Your task to perform on an android device: uninstall "Roku - Official Remote Control" Image 0: 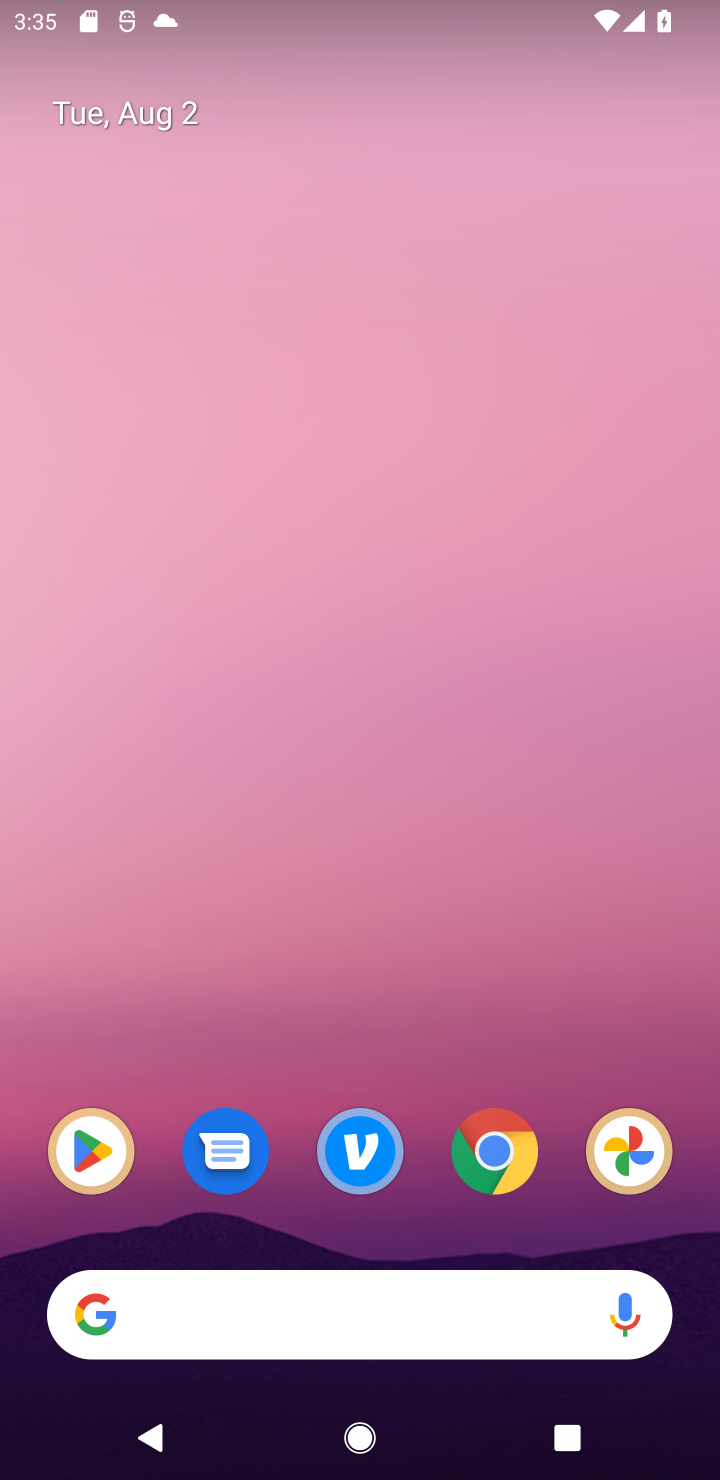
Step 0: drag from (443, 791) to (671, 880)
Your task to perform on an android device: uninstall "Roku - Official Remote Control" Image 1: 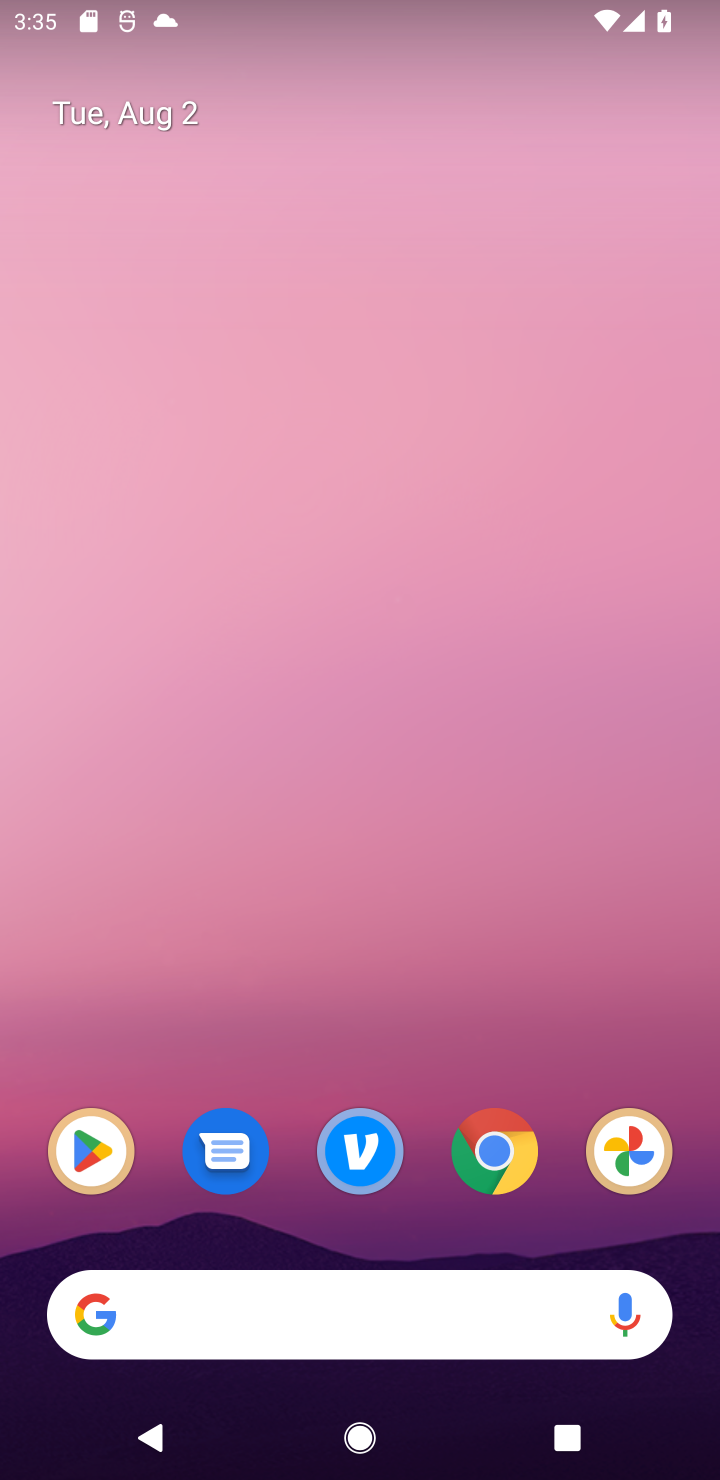
Step 1: drag from (409, 1083) to (375, 174)
Your task to perform on an android device: uninstall "Roku - Official Remote Control" Image 2: 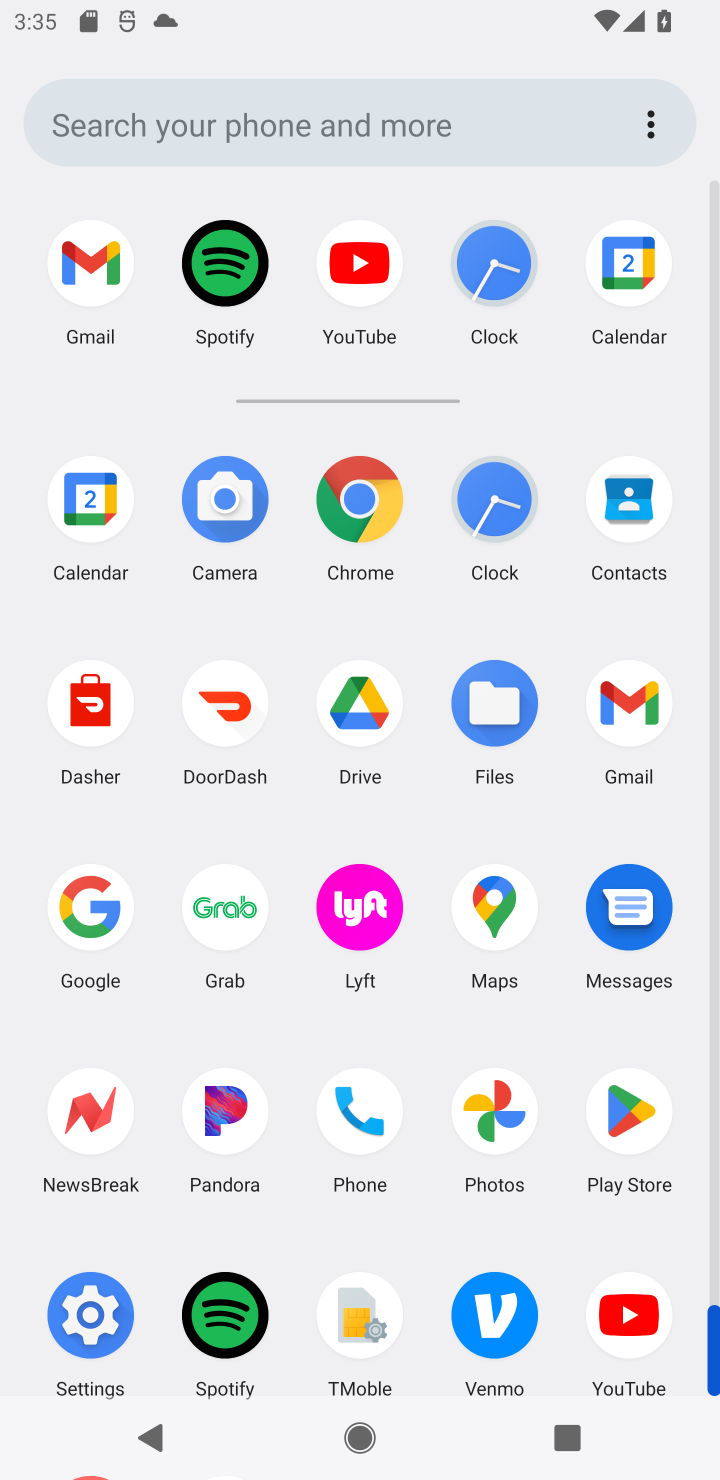
Step 2: click (573, 1122)
Your task to perform on an android device: uninstall "Roku - Official Remote Control" Image 3: 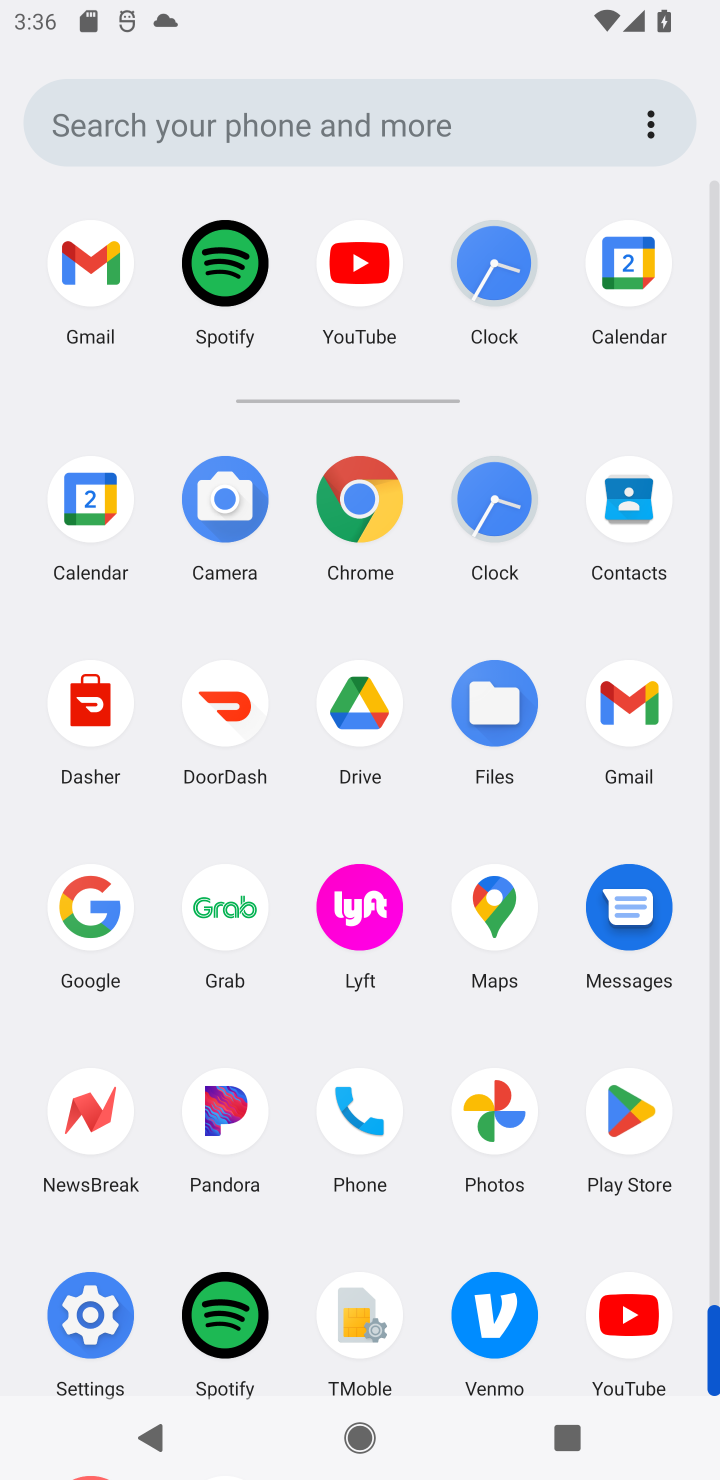
Step 3: click (642, 1125)
Your task to perform on an android device: uninstall "Roku - Official Remote Control" Image 4: 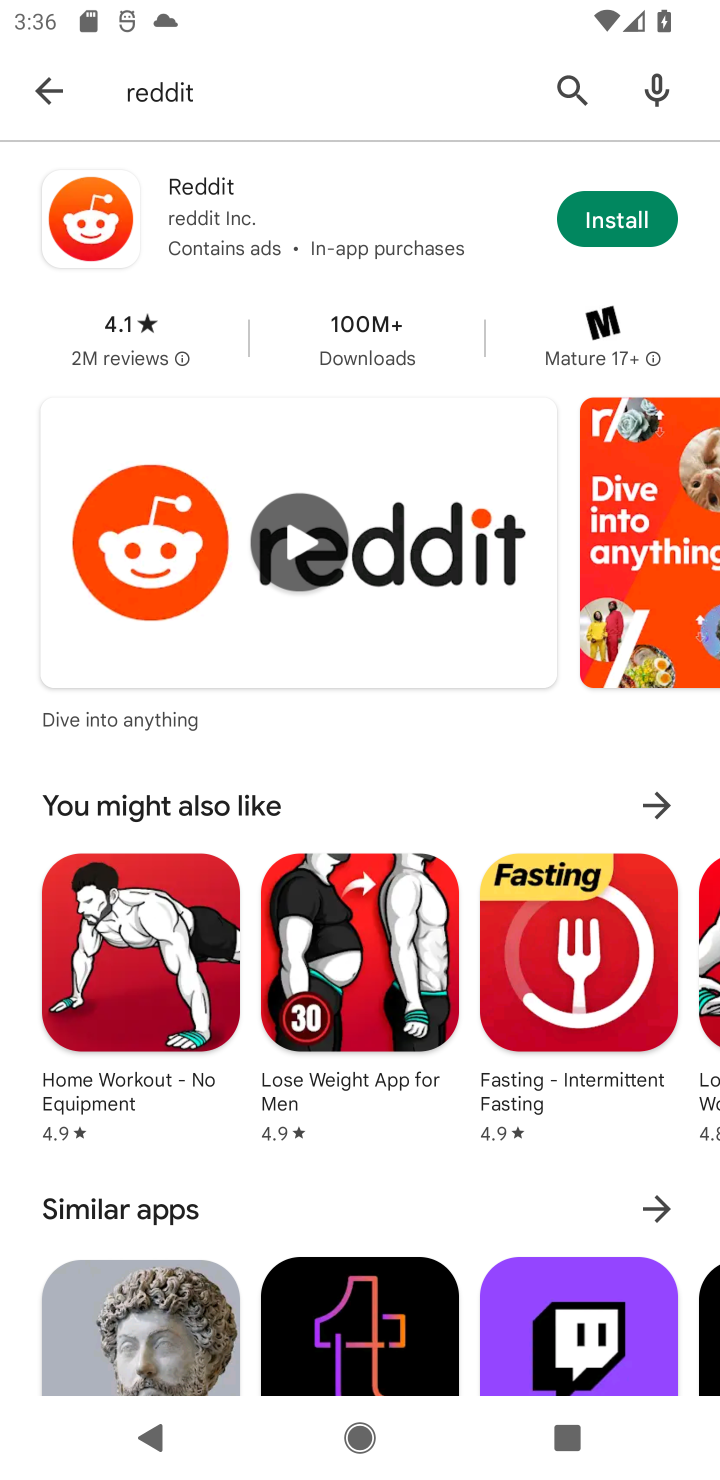
Step 4: click (33, 92)
Your task to perform on an android device: uninstall "Roku - Official Remote Control" Image 5: 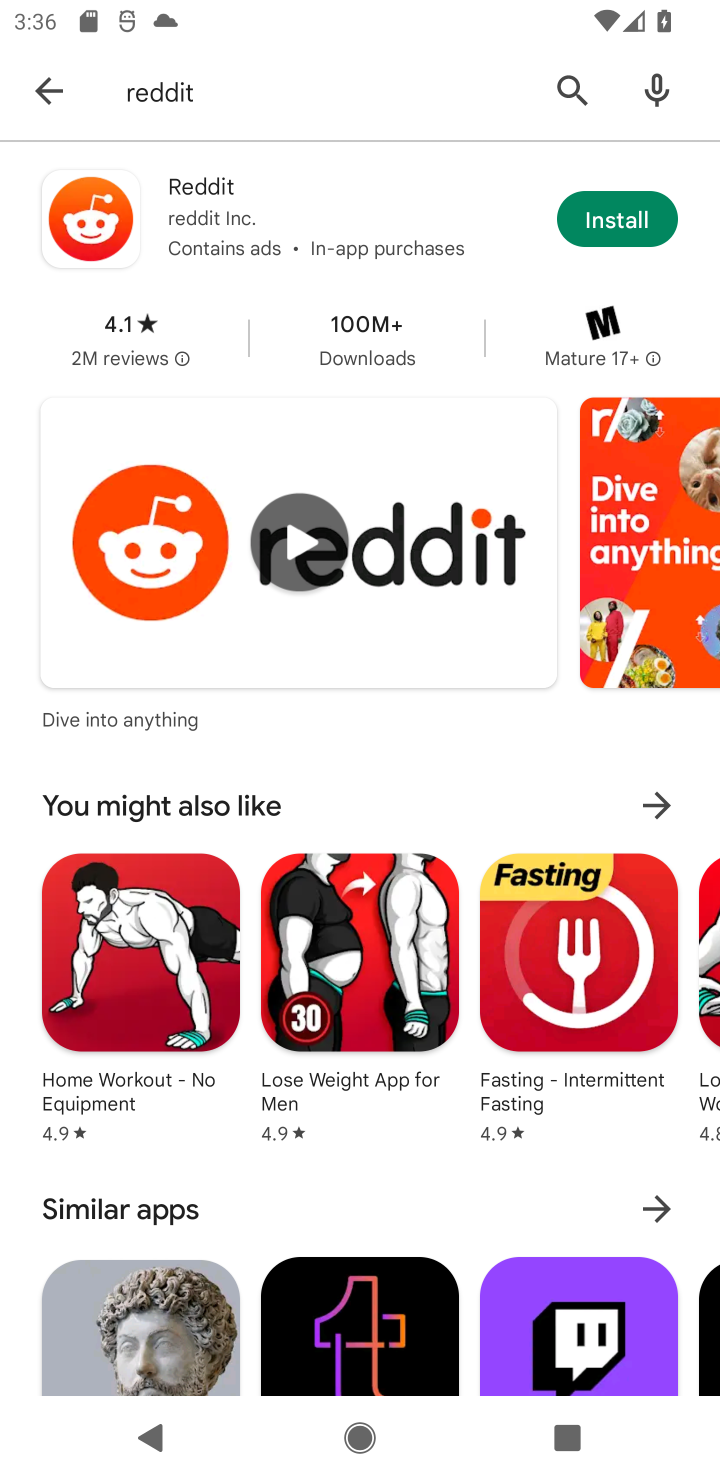
Step 5: task complete